Your task to perform on an android device: check google app version Image 0: 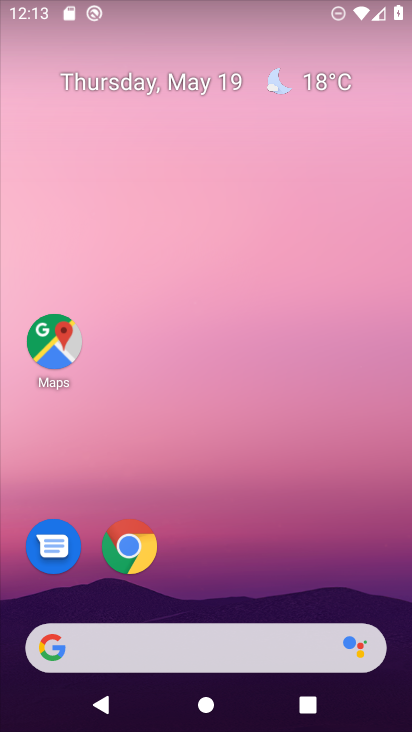
Step 0: drag from (244, 598) to (286, 260)
Your task to perform on an android device: check google app version Image 1: 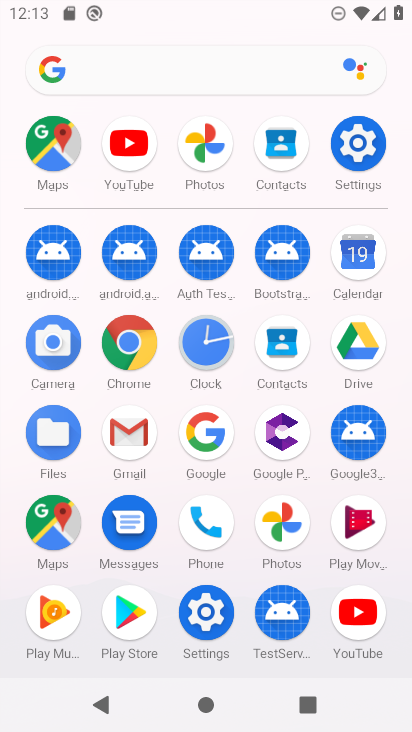
Step 1: click (212, 435)
Your task to perform on an android device: check google app version Image 2: 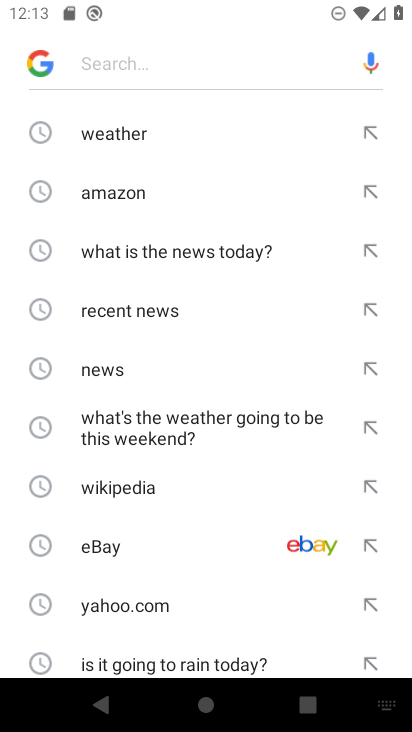
Step 2: click (14, 67)
Your task to perform on an android device: check google app version Image 3: 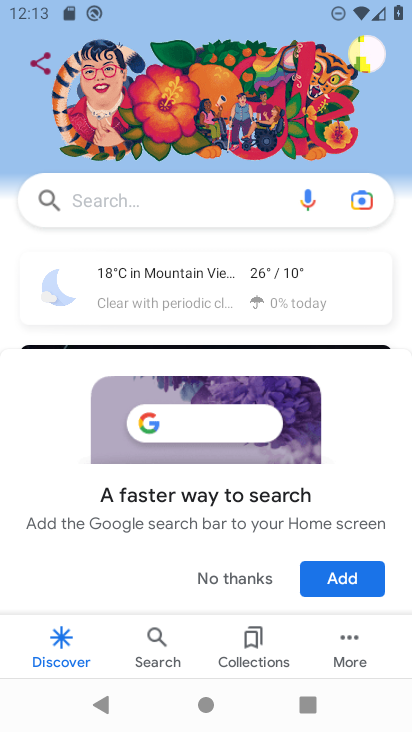
Step 3: click (350, 631)
Your task to perform on an android device: check google app version Image 4: 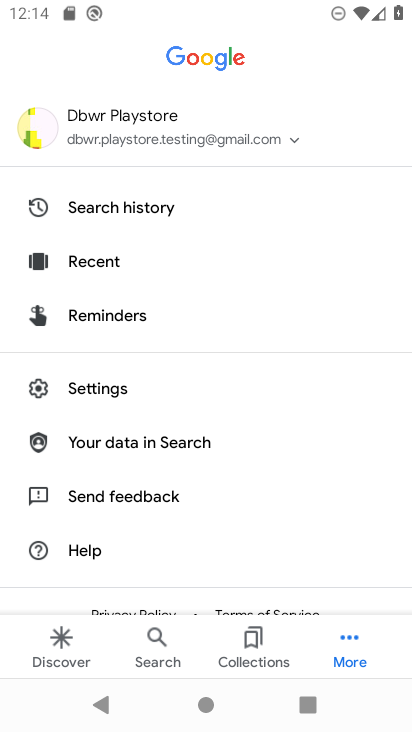
Step 4: click (82, 385)
Your task to perform on an android device: check google app version Image 5: 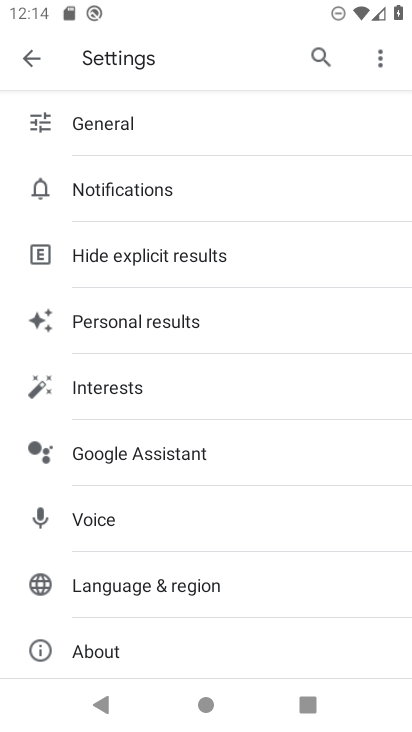
Step 5: click (93, 650)
Your task to perform on an android device: check google app version Image 6: 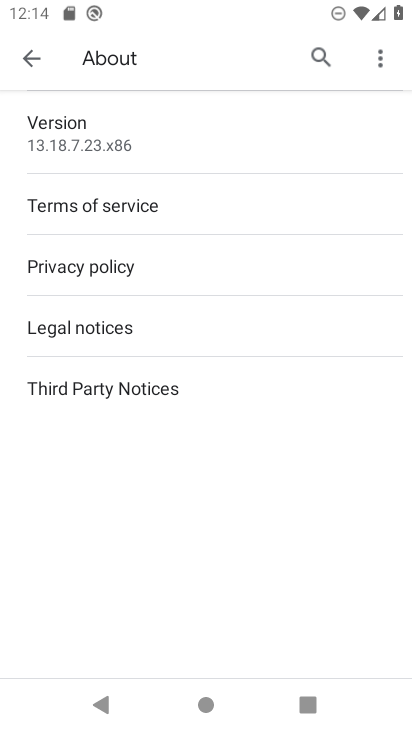
Step 6: task complete